Your task to perform on an android device: open the mobile data screen to see how much data has been used Image 0: 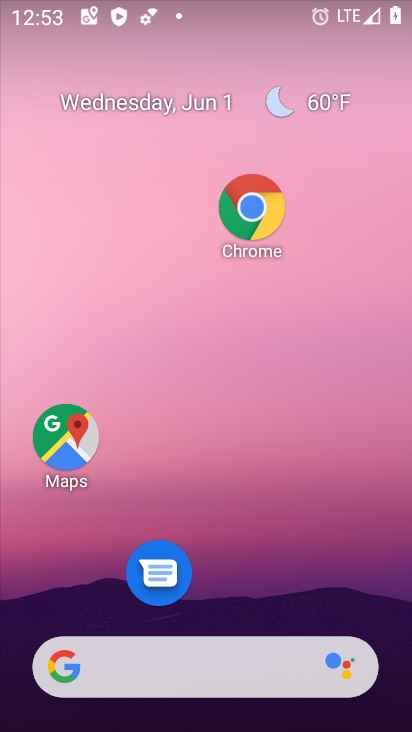
Step 0: drag from (212, 593) to (191, 194)
Your task to perform on an android device: open the mobile data screen to see how much data has been used Image 1: 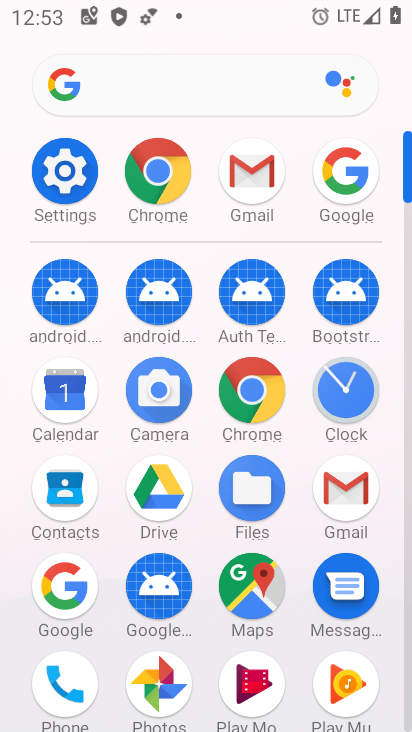
Step 1: click (75, 182)
Your task to perform on an android device: open the mobile data screen to see how much data has been used Image 2: 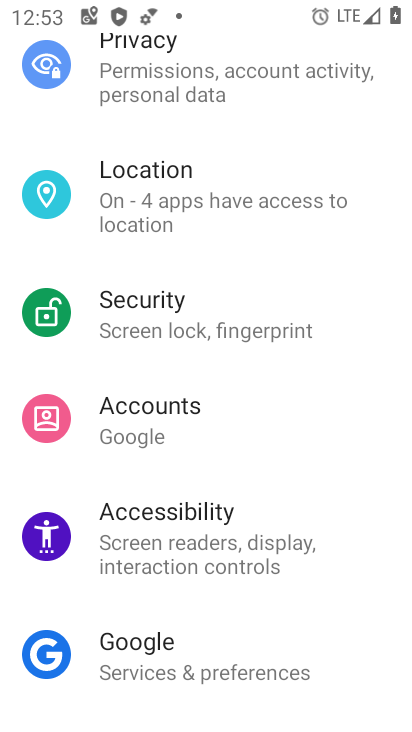
Step 2: drag from (175, 180) to (195, 487)
Your task to perform on an android device: open the mobile data screen to see how much data has been used Image 3: 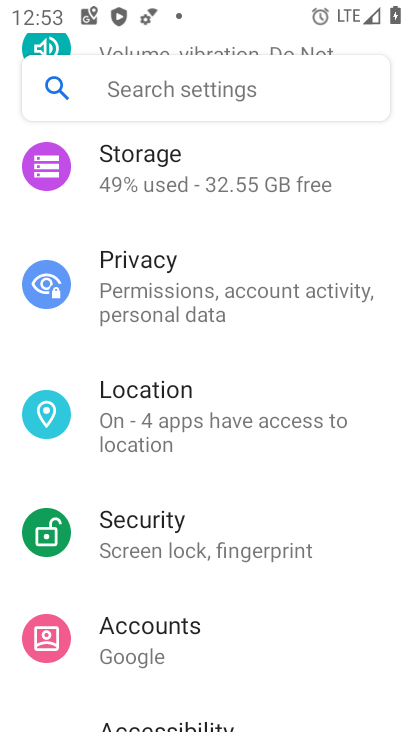
Step 3: drag from (243, 234) to (243, 566)
Your task to perform on an android device: open the mobile data screen to see how much data has been used Image 4: 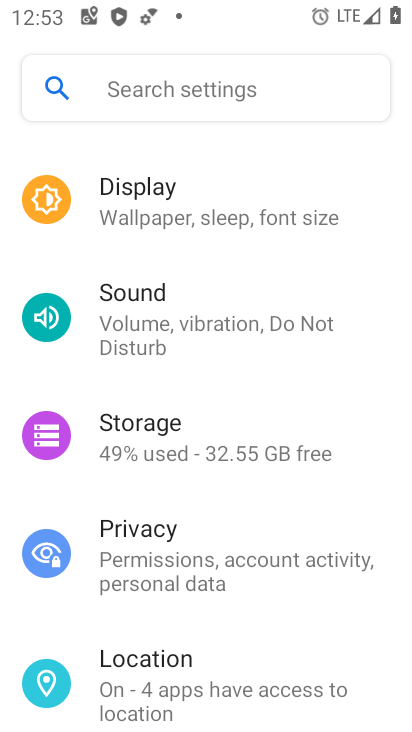
Step 4: drag from (240, 229) to (263, 433)
Your task to perform on an android device: open the mobile data screen to see how much data has been used Image 5: 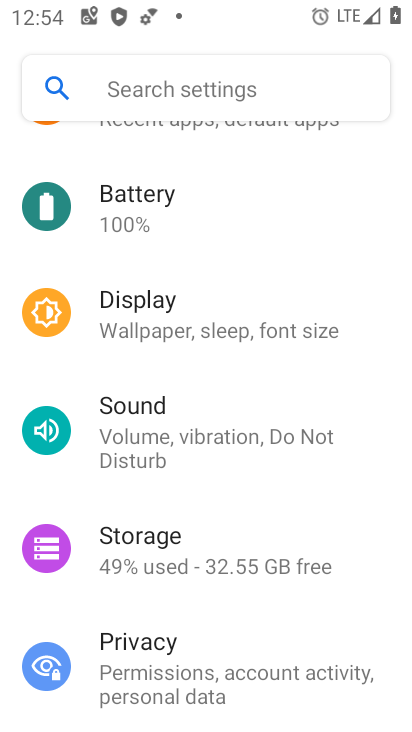
Step 5: drag from (207, 196) to (203, 554)
Your task to perform on an android device: open the mobile data screen to see how much data has been used Image 6: 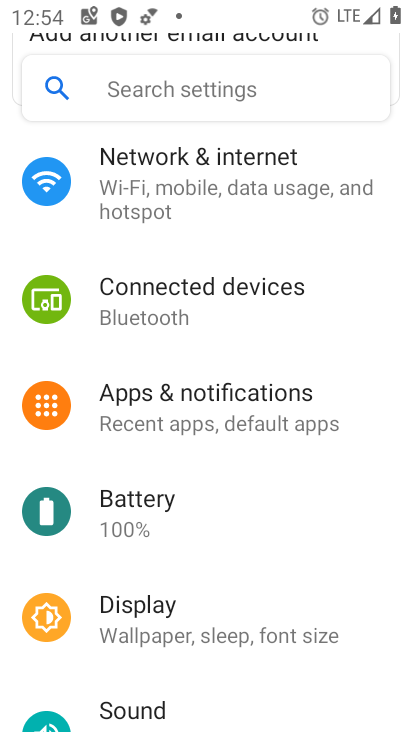
Step 6: drag from (227, 195) to (251, 425)
Your task to perform on an android device: open the mobile data screen to see how much data has been used Image 7: 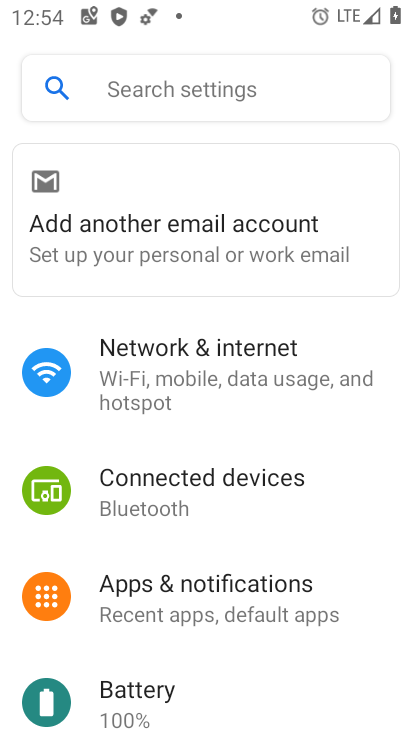
Step 7: click (238, 386)
Your task to perform on an android device: open the mobile data screen to see how much data has been used Image 8: 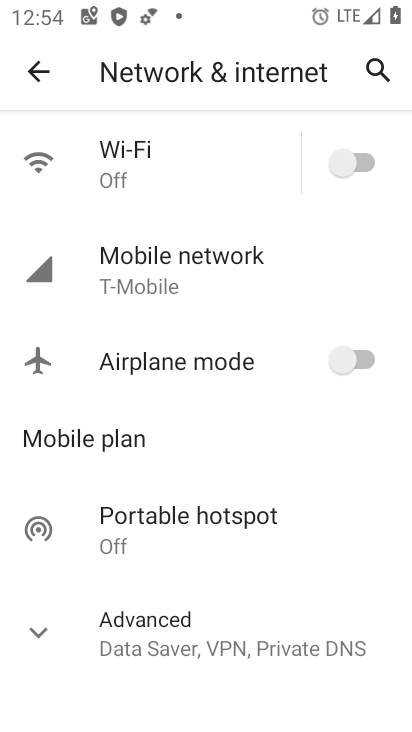
Step 8: click (229, 279)
Your task to perform on an android device: open the mobile data screen to see how much data has been used Image 9: 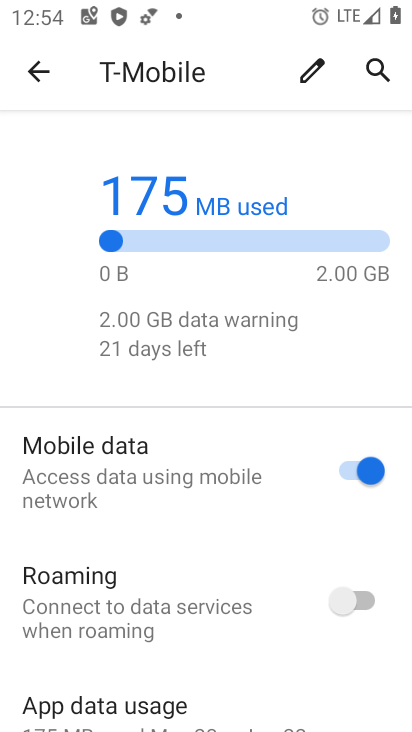
Step 9: drag from (279, 597) to (270, 355)
Your task to perform on an android device: open the mobile data screen to see how much data has been used Image 10: 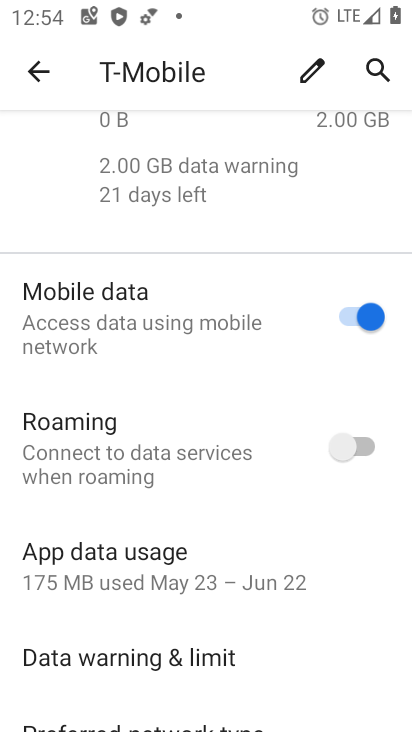
Step 10: click (235, 578)
Your task to perform on an android device: open the mobile data screen to see how much data has been used Image 11: 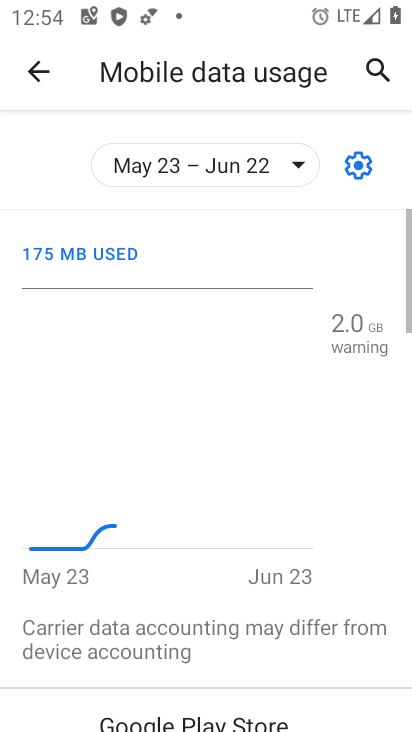
Step 11: task complete